Your task to perform on an android device: Open settings on Google Maps Image 0: 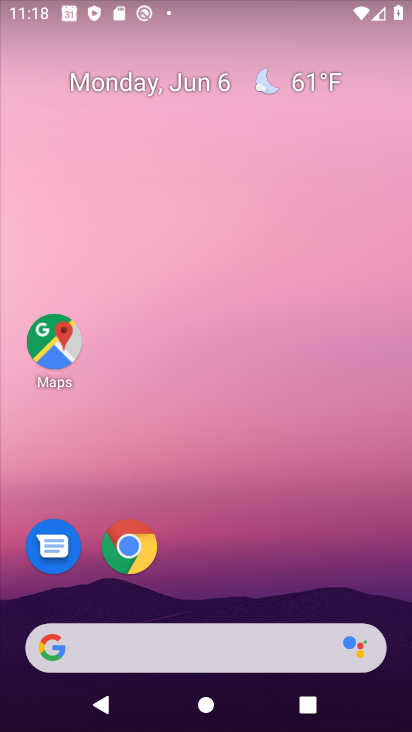
Step 0: click (40, 341)
Your task to perform on an android device: Open settings on Google Maps Image 1: 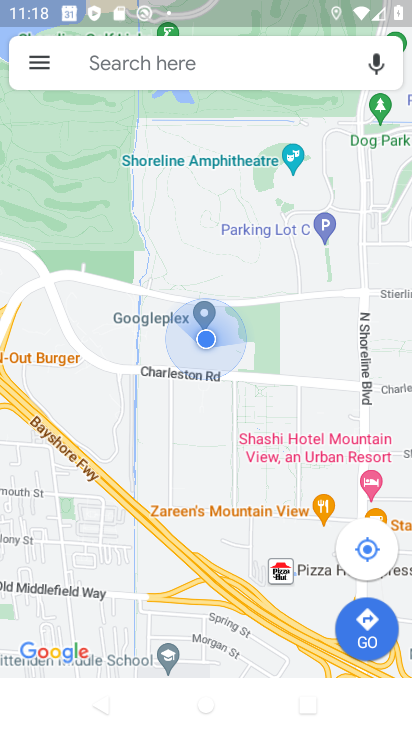
Step 1: task complete